Your task to perform on an android device: open app "Microsoft Authenticator" Image 0: 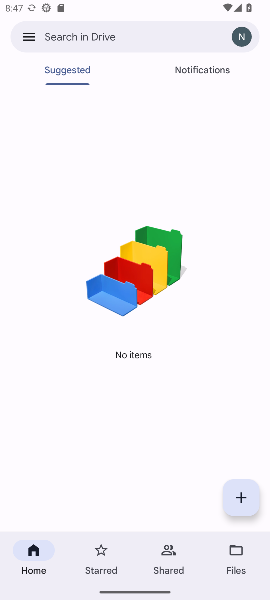
Step 0: press home button
Your task to perform on an android device: open app "Microsoft Authenticator" Image 1: 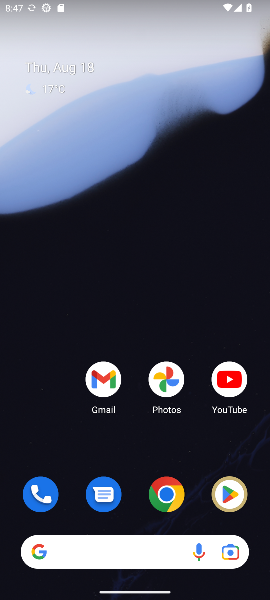
Step 1: click (229, 492)
Your task to perform on an android device: open app "Microsoft Authenticator" Image 2: 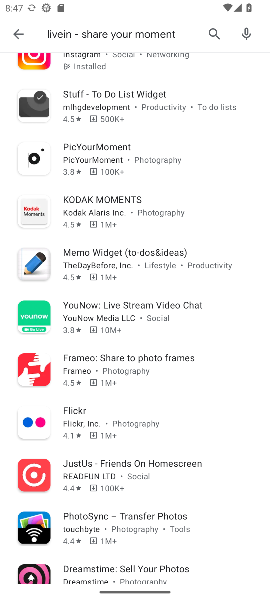
Step 2: click (212, 35)
Your task to perform on an android device: open app "Microsoft Authenticator" Image 3: 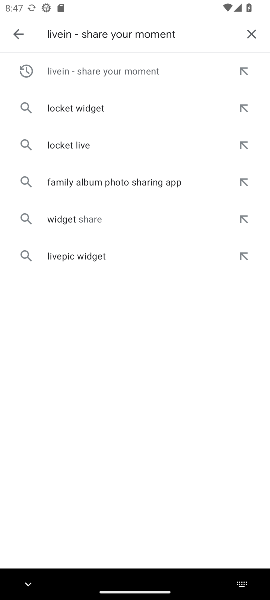
Step 3: click (251, 34)
Your task to perform on an android device: open app "Microsoft Authenticator" Image 4: 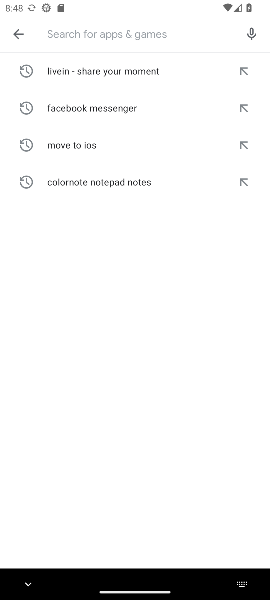
Step 4: type "Microsoft Authenticator"
Your task to perform on an android device: open app "Microsoft Authenticator" Image 5: 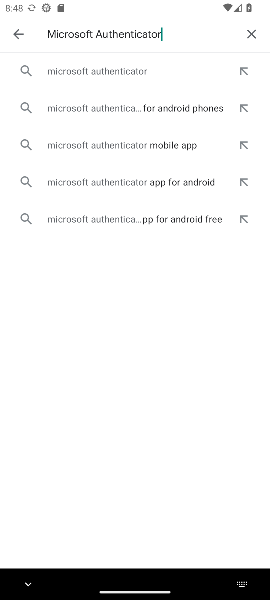
Step 5: click (73, 71)
Your task to perform on an android device: open app "Microsoft Authenticator" Image 6: 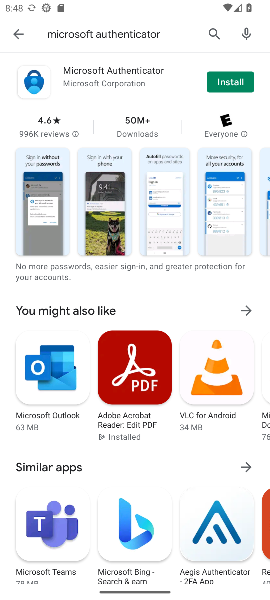
Step 6: task complete